Your task to perform on an android device: check android version Image 0: 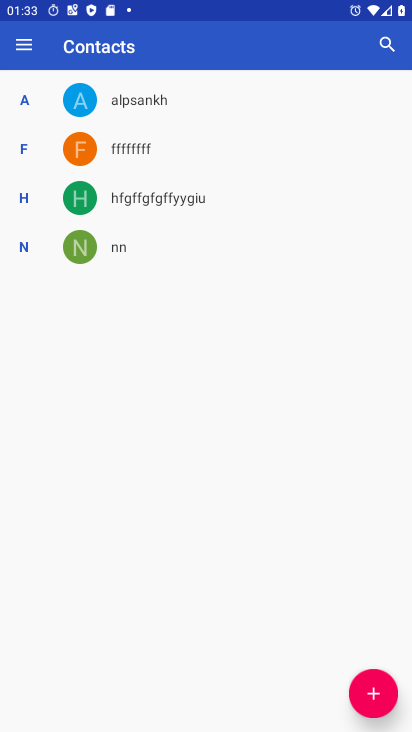
Step 0: press home button
Your task to perform on an android device: check android version Image 1: 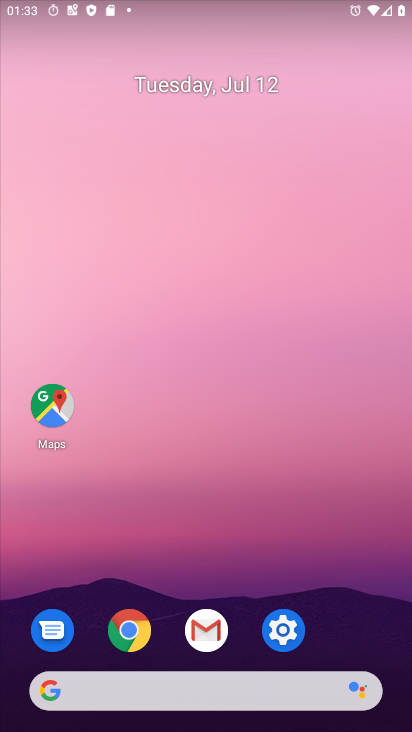
Step 1: click (284, 629)
Your task to perform on an android device: check android version Image 2: 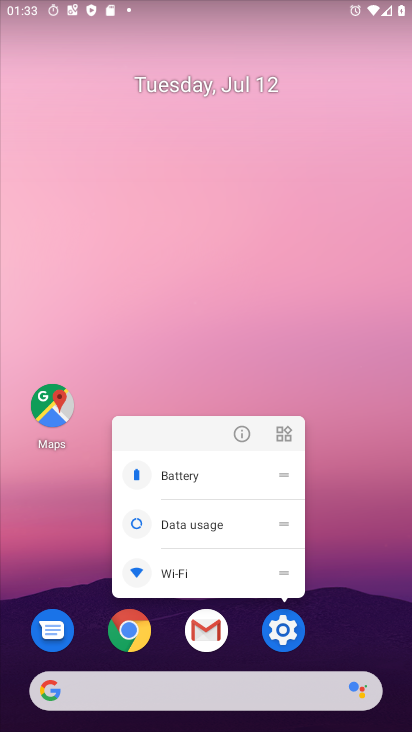
Step 2: click (294, 628)
Your task to perform on an android device: check android version Image 3: 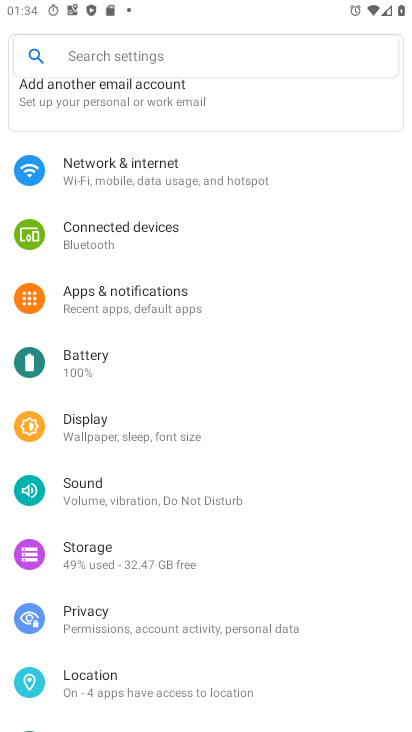
Step 3: click (83, 62)
Your task to perform on an android device: check android version Image 4: 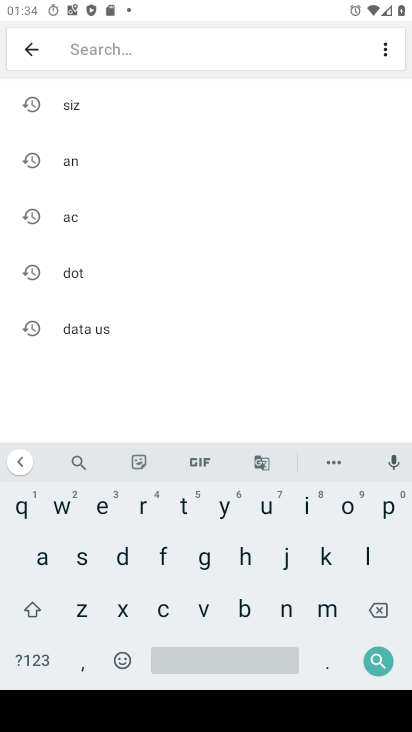
Step 4: click (32, 553)
Your task to perform on an android device: check android version Image 5: 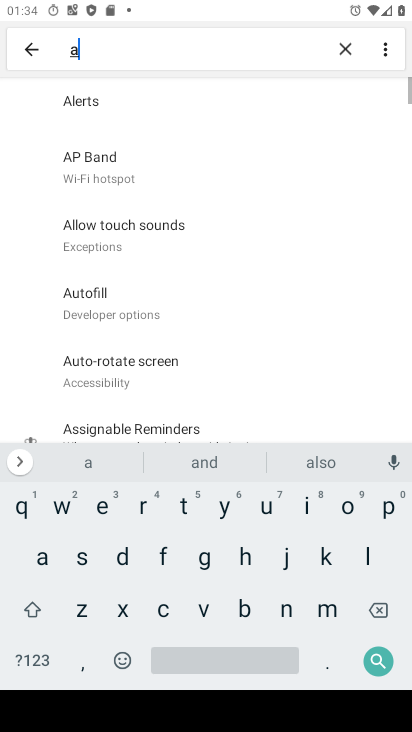
Step 5: click (285, 615)
Your task to perform on an android device: check android version Image 6: 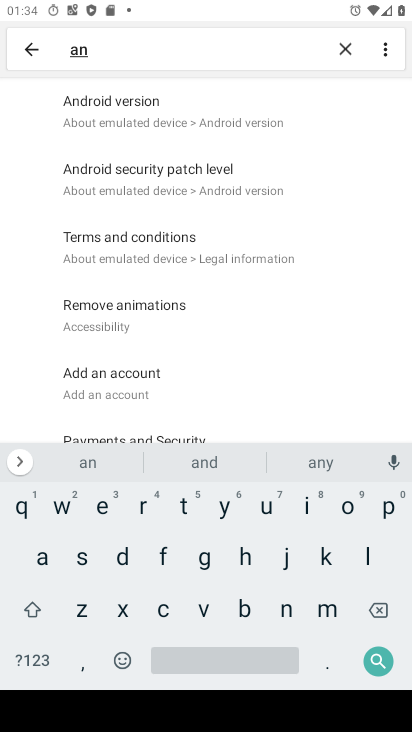
Step 6: click (152, 117)
Your task to perform on an android device: check android version Image 7: 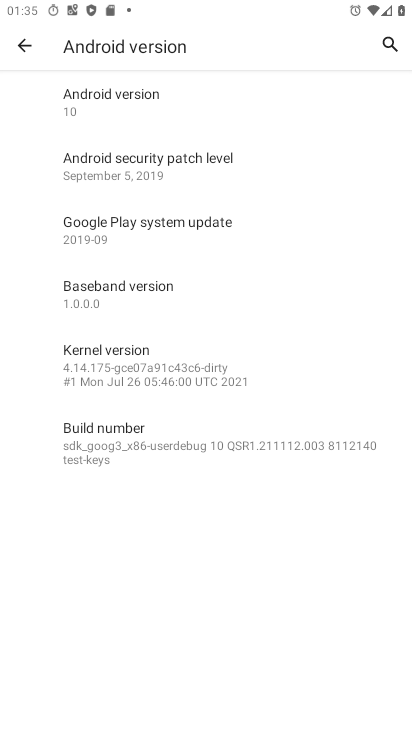
Step 7: task complete